Your task to perform on an android device: Go to Amazon Image 0: 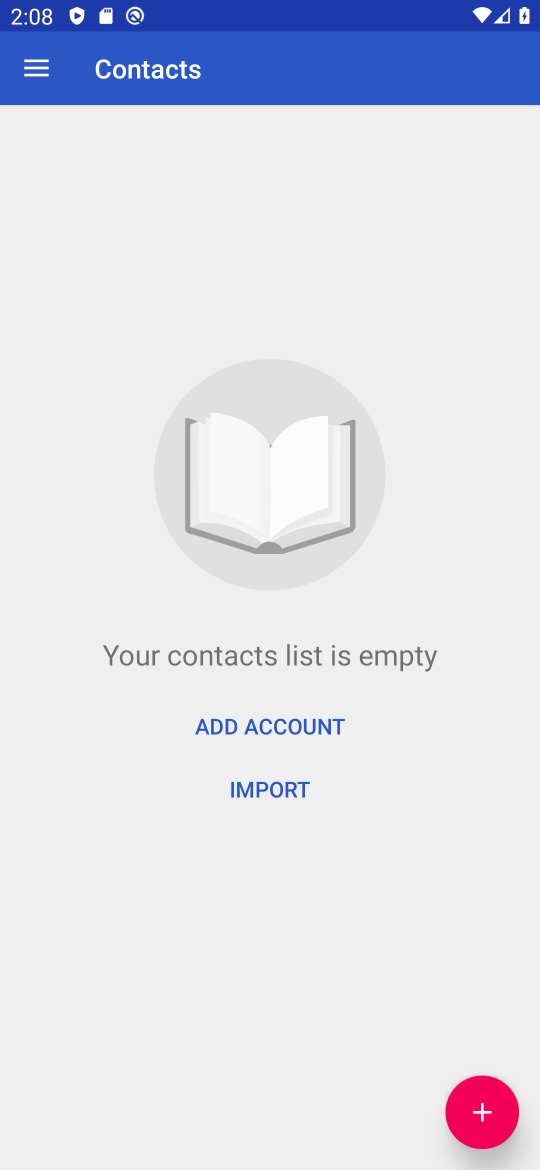
Step 0: press home button
Your task to perform on an android device: Go to Amazon Image 1: 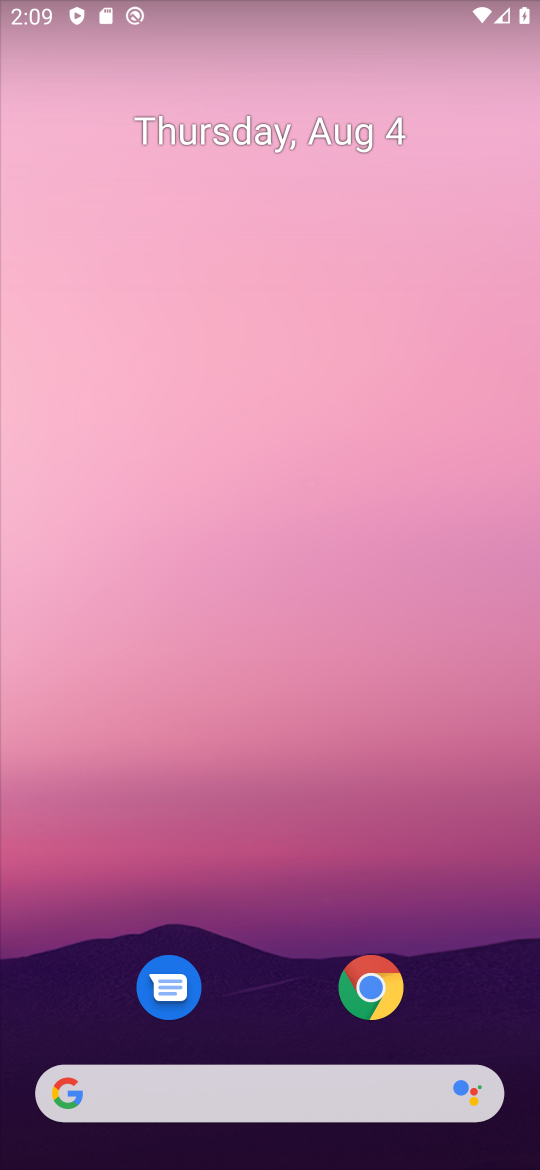
Step 1: drag from (481, 981) to (144, 32)
Your task to perform on an android device: Go to Amazon Image 2: 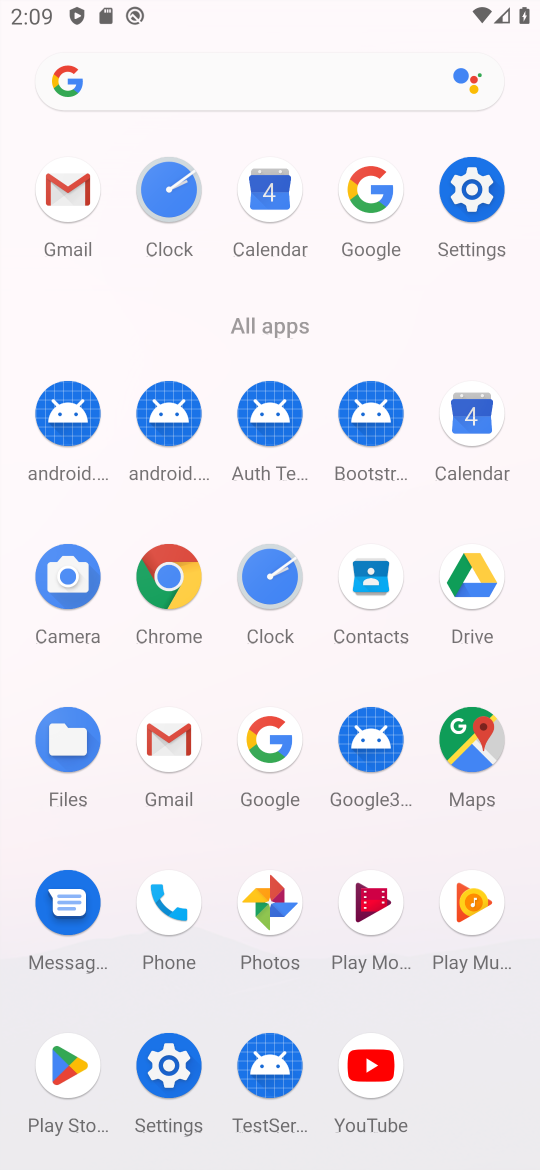
Step 2: click (272, 748)
Your task to perform on an android device: Go to Amazon Image 3: 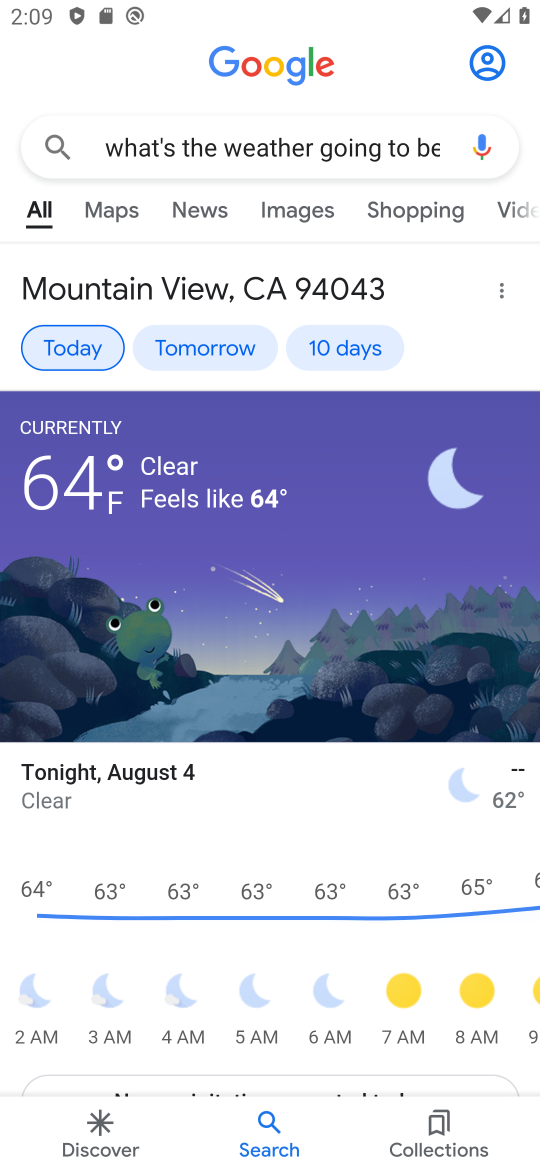
Step 3: press back button
Your task to perform on an android device: Go to Amazon Image 4: 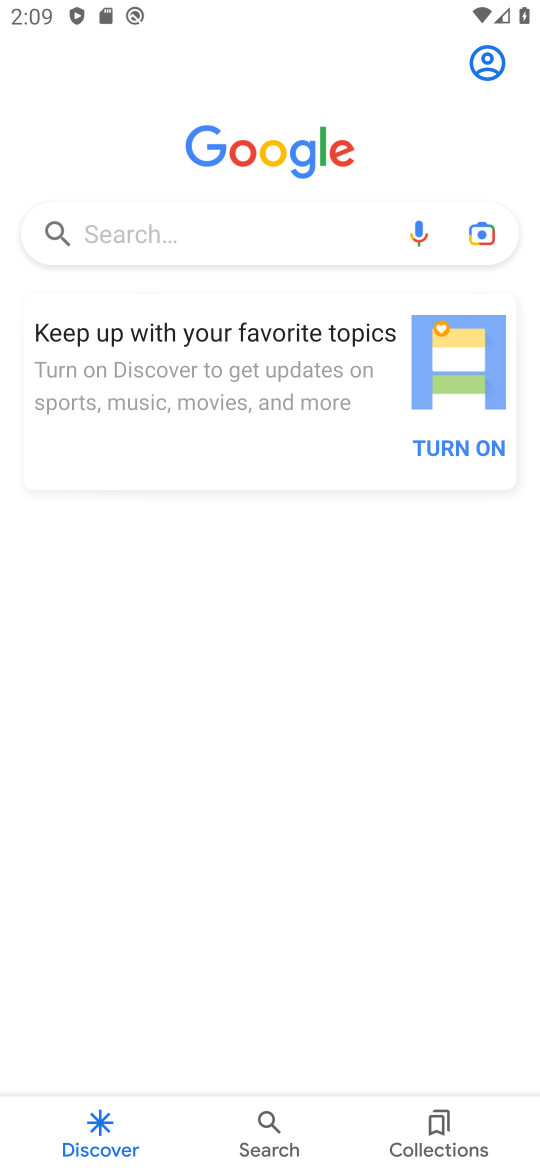
Step 4: click (136, 224)
Your task to perform on an android device: Go to Amazon Image 5: 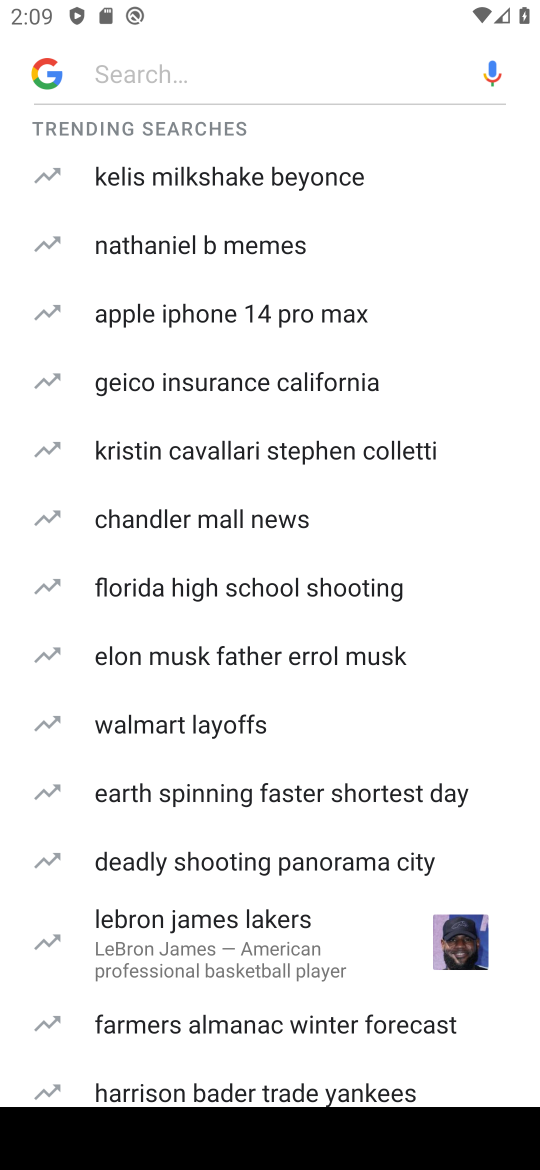
Step 5: type "Amazon"
Your task to perform on an android device: Go to Amazon Image 6: 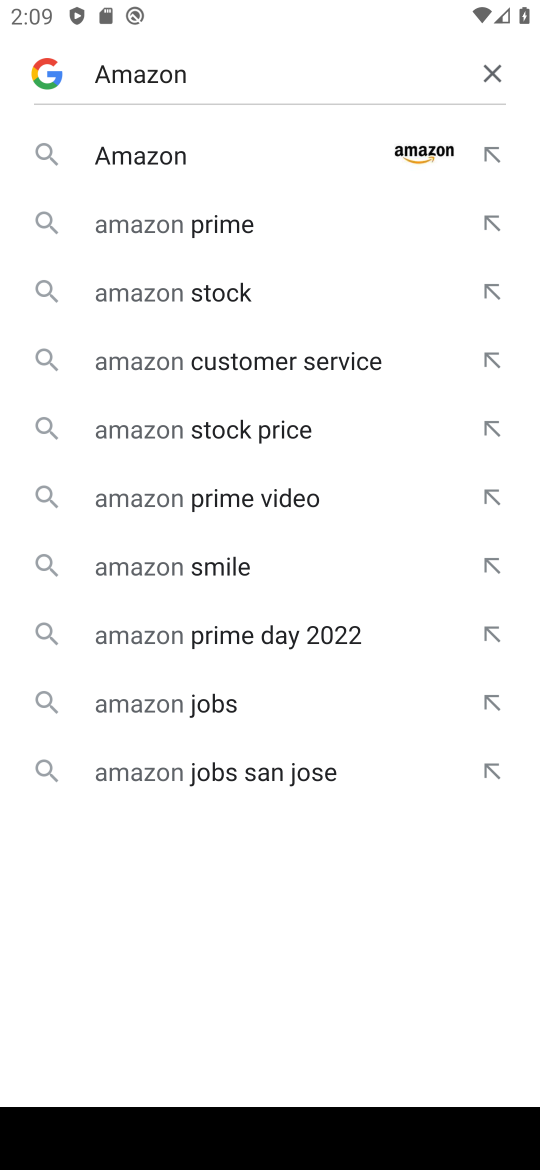
Step 6: click (173, 157)
Your task to perform on an android device: Go to Amazon Image 7: 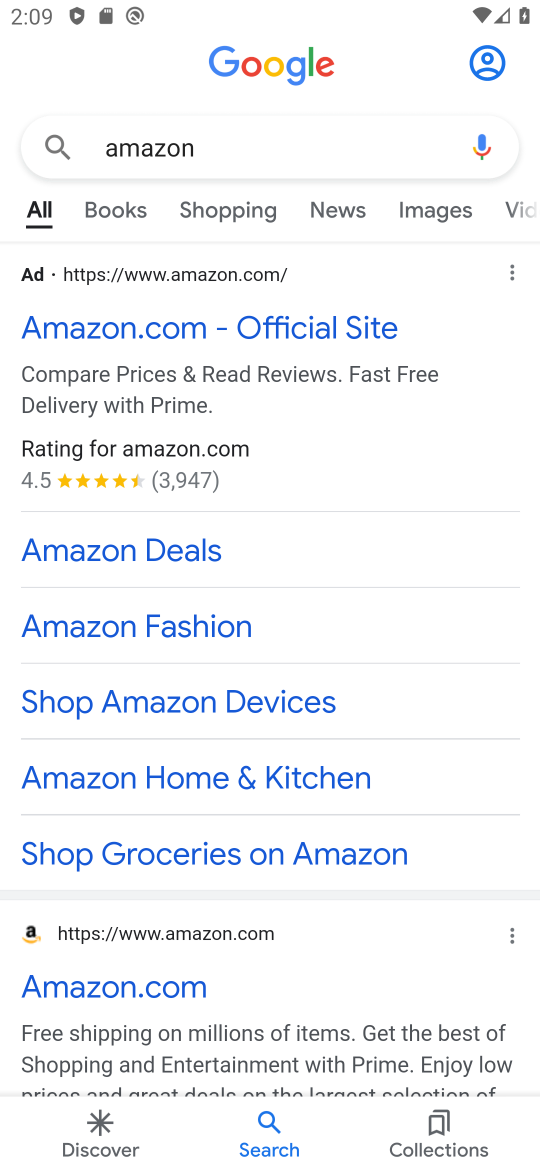
Step 7: task complete